Your task to perform on an android device: Open settings on Google Maps Image 0: 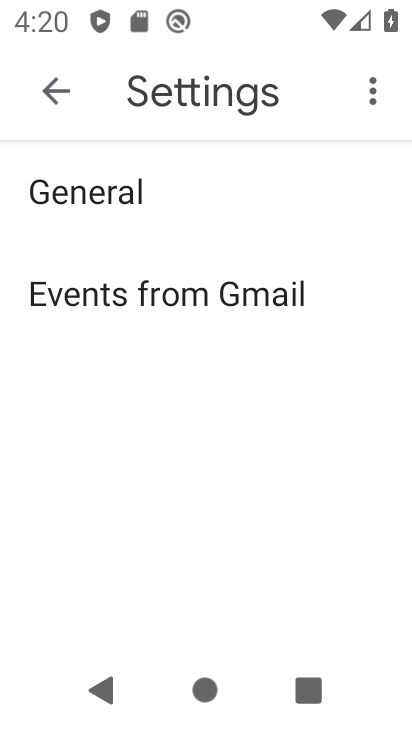
Step 0: press home button
Your task to perform on an android device: Open settings on Google Maps Image 1: 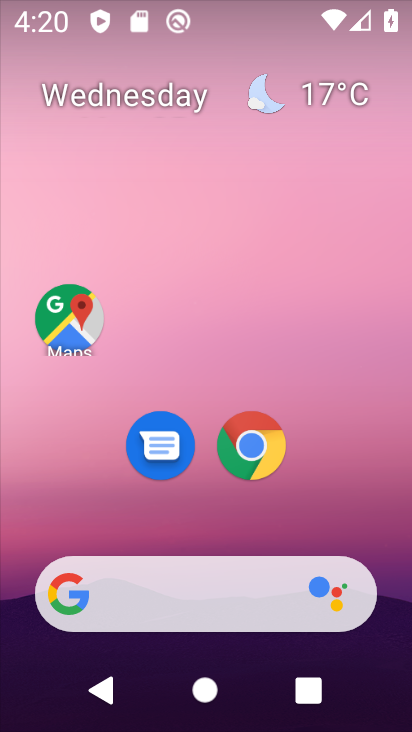
Step 1: click (88, 318)
Your task to perform on an android device: Open settings on Google Maps Image 2: 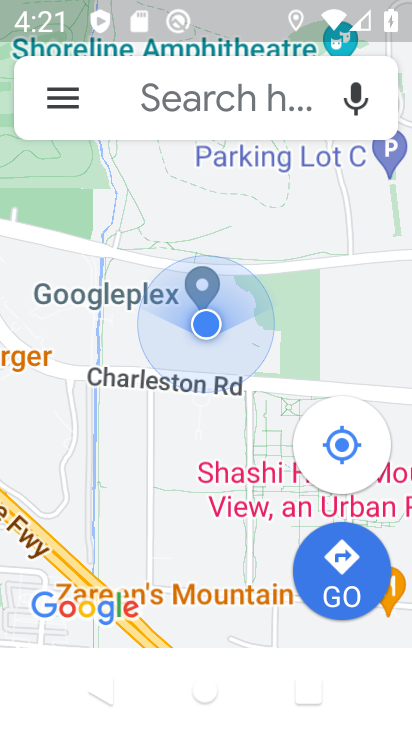
Step 2: click (69, 94)
Your task to perform on an android device: Open settings on Google Maps Image 3: 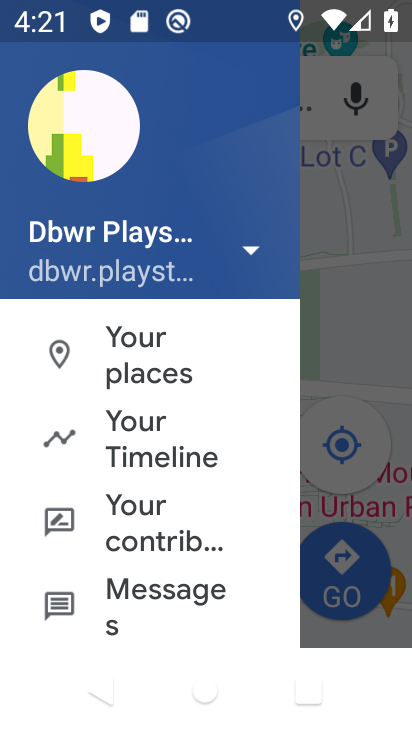
Step 3: drag from (181, 578) to (146, 231)
Your task to perform on an android device: Open settings on Google Maps Image 4: 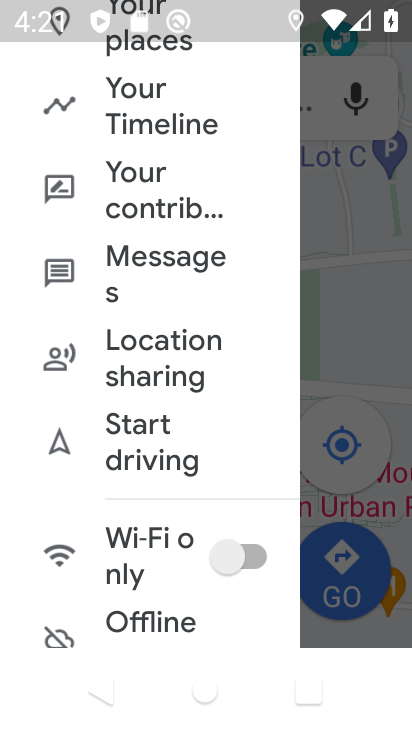
Step 4: drag from (175, 610) to (157, 313)
Your task to perform on an android device: Open settings on Google Maps Image 5: 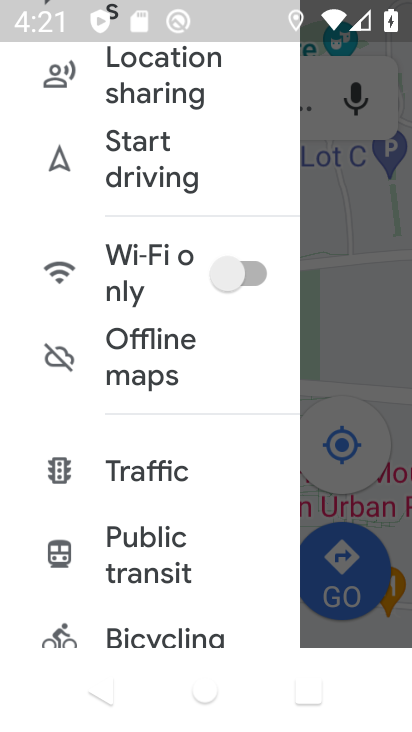
Step 5: drag from (182, 598) to (150, 136)
Your task to perform on an android device: Open settings on Google Maps Image 6: 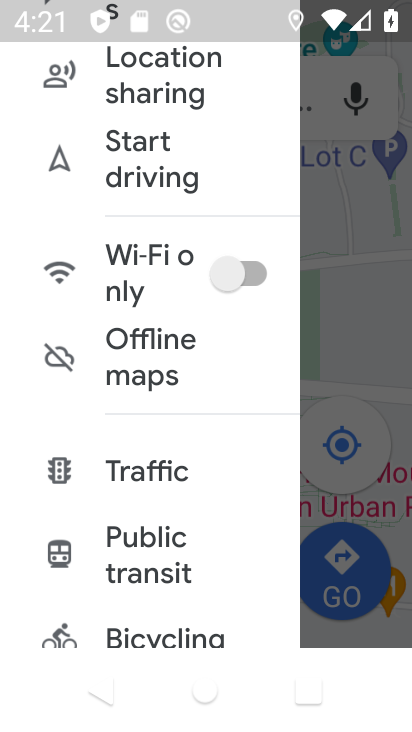
Step 6: drag from (169, 561) to (145, 170)
Your task to perform on an android device: Open settings on Google Maps Image 7: 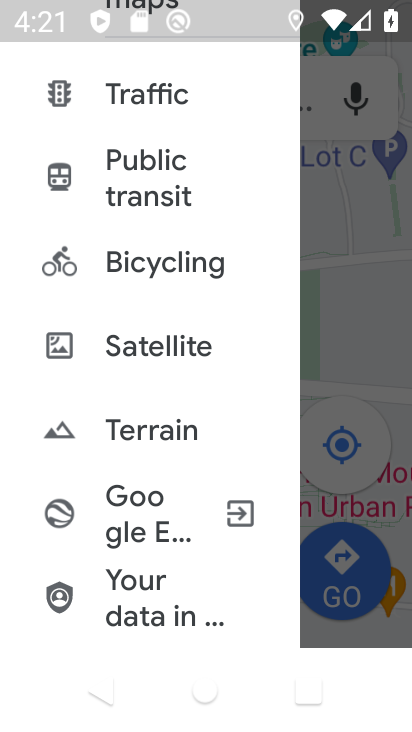
Step 7: drag from (155, 618) to (157, 68)
Your task to perform on an android device: Open settings on Google Maps Image 8: 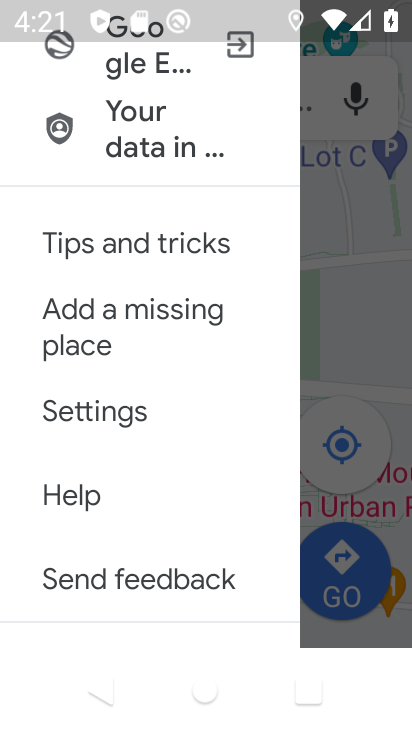
Step 8: click (149, 414)
Your task to perform on an android device: Open settings on Google Maps Image 9: 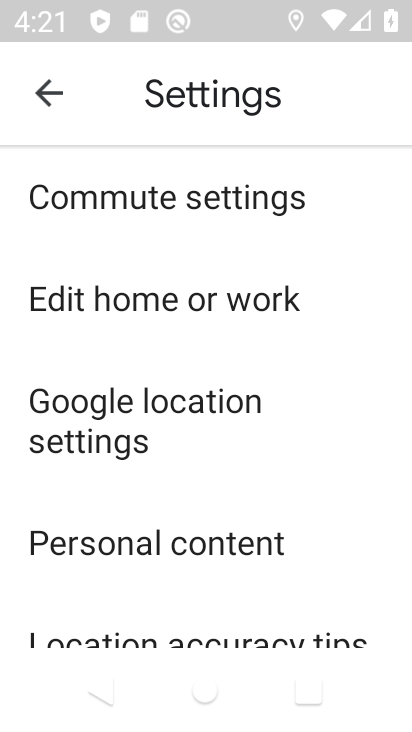
Step 9: task complete